Your task to perform on an android device: open device folders in google photos Image 0: 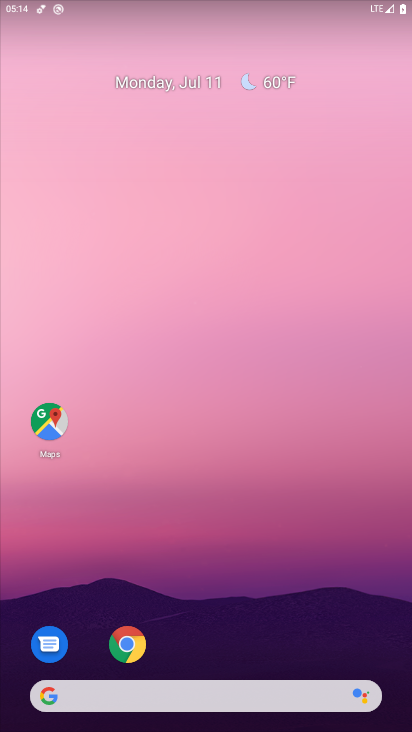
Step 0: drag from (157, 626) to (149, 338)
Your task to perform on an android device: open device folders in google photos Image 1: 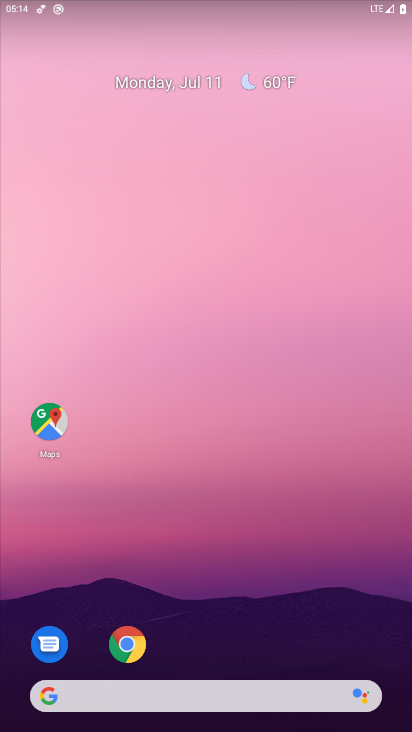
Step 1: drag from (240, 699) to (211, 303)
Your task to perform on an android device: open device folders in google photos Image 2: 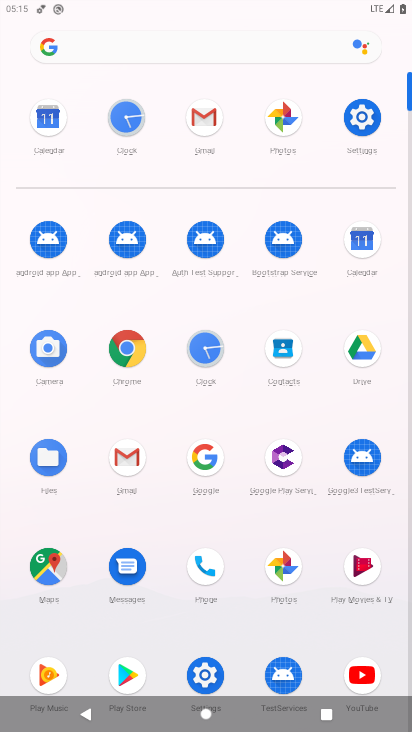
Step 2: click (278, 119)
Your task to perform on an android device: open device folders in google photos Image 3: 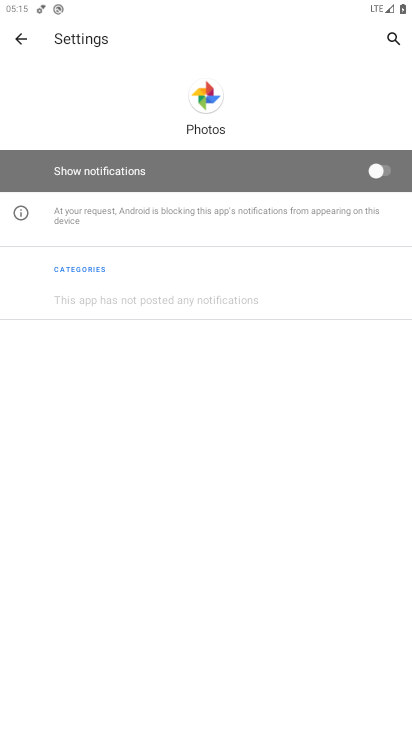
Step 3: click (16, 37)
Your task to perform on an android device: open device folders in google photos Image 4: 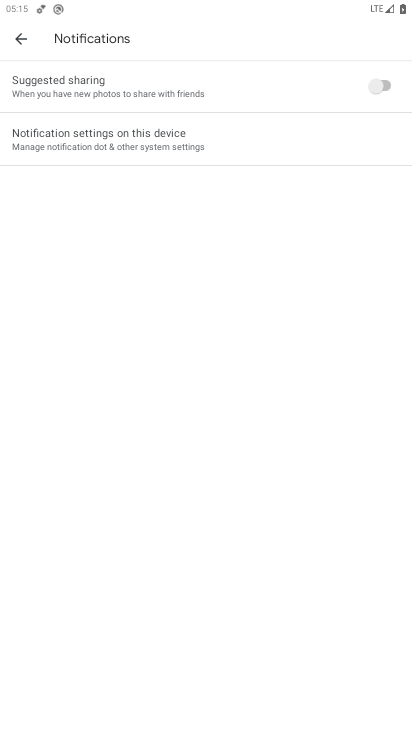
Step 4: click (20, 38)
Your task to perform on an android device: open device folders in google photos Image 5: 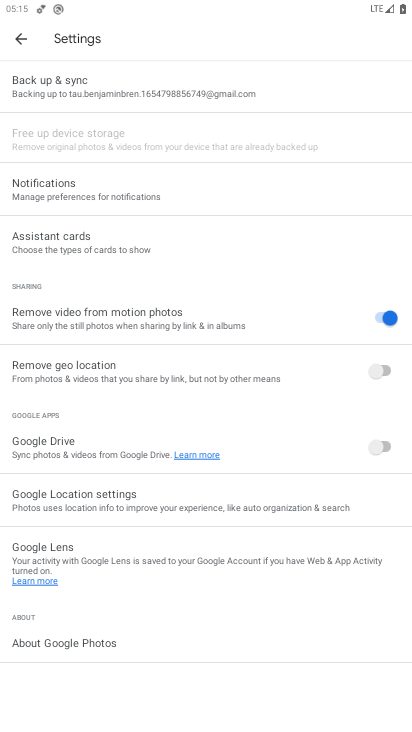
Step 5: click (20, 38)
Your task to perform on an android device: open device folders in google photos Image 6: 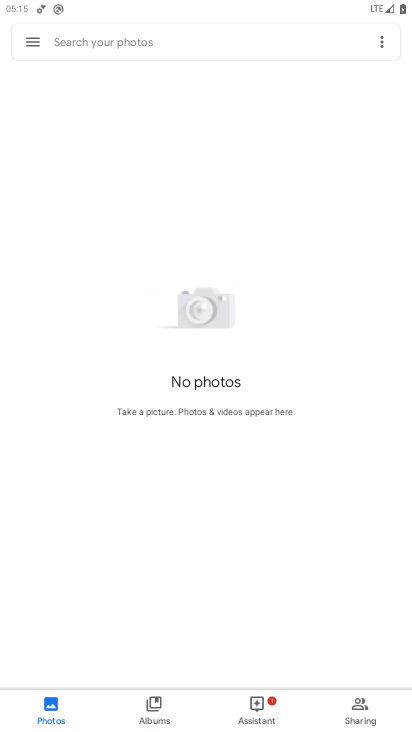
Step 6: click (32, 48)
Your task to perform on an android device: open device folders in google photos Image 7: 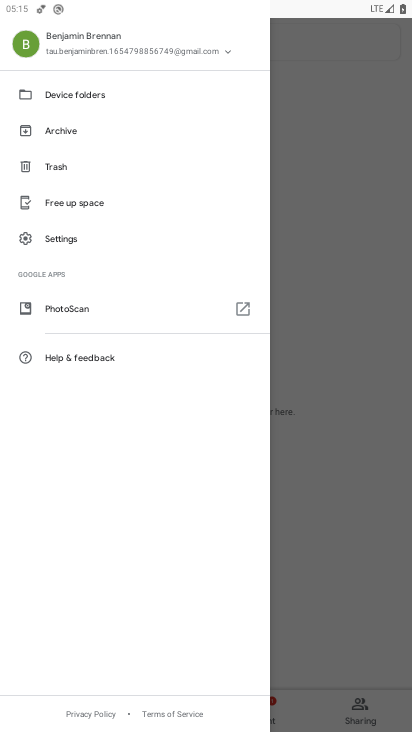
Step 7: click (64, 93)
Your task to perform on an android device: open device folders in google photos Image 8: 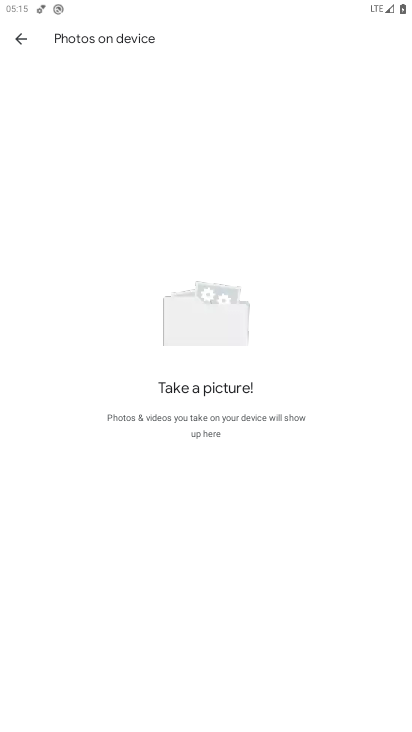
Step 8: task complete